Your task to perform on an android device: Go to Reddit.com Image 0: 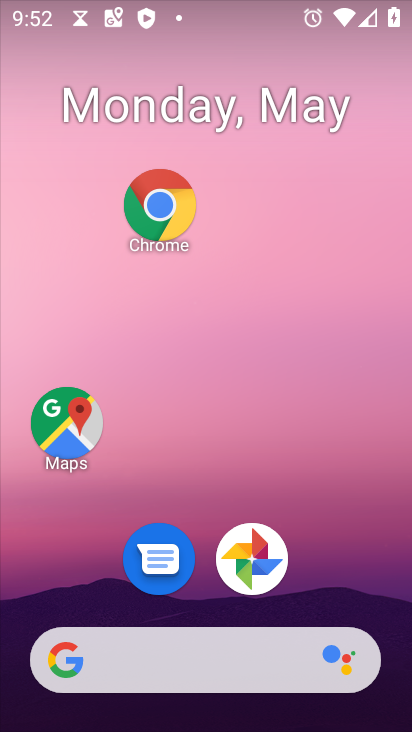
Step 0: drag from (216, 622) to (175, 133)
Your task to perform on an android device: Go to Reddit.com Image 1: 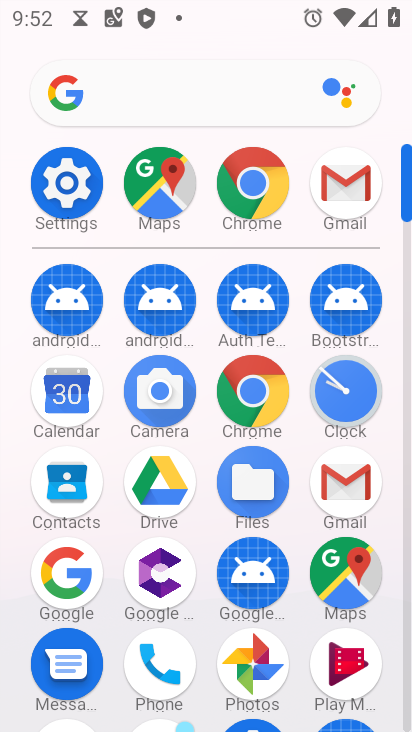
Step 1: click (241, 199)
Your task to perform on an android device: Go to Reddit.com Image 2: 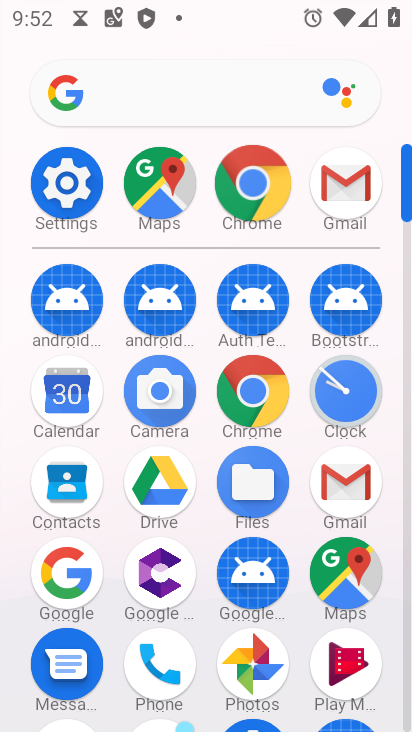
Step 2: click (249, 195)
Your task to perform on an android device: Go to Reddit.com Image 3: 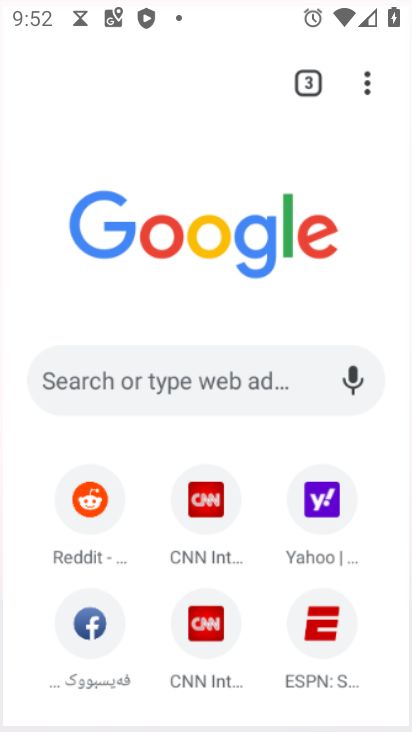
Step 3: click (252, 193)
Your task to perform on an android device: Go to Reddit.com Image 4: 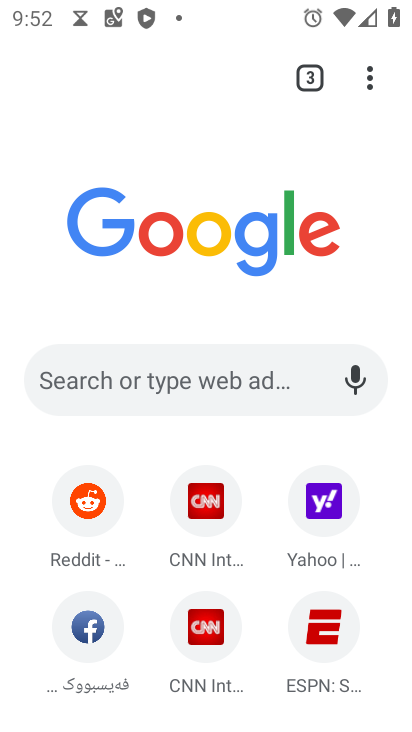
Step 4: click (51, 380)
Your task to perform on an android device: Go to Reddit.com Image 5: 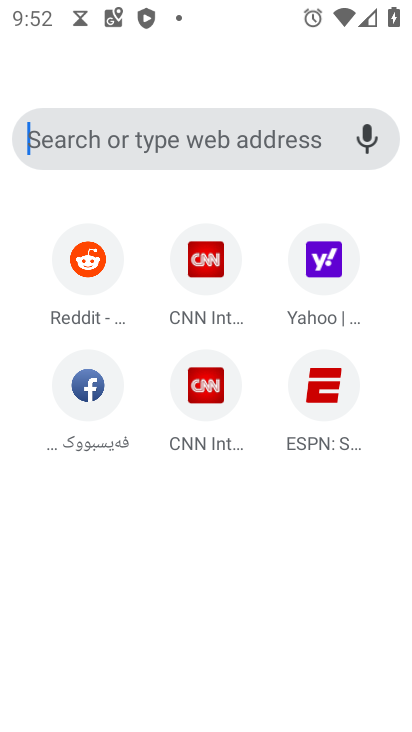
Step 5: click (52, 382)
Your task to perform on an android device: Go to Reddit.com Image 6: 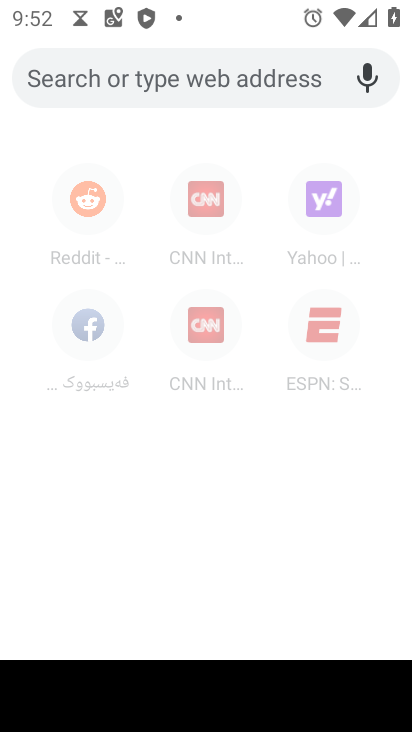
Step 6: click (52, 382)
Your task to perform on an android device: Go to Reddit.com Image 7: 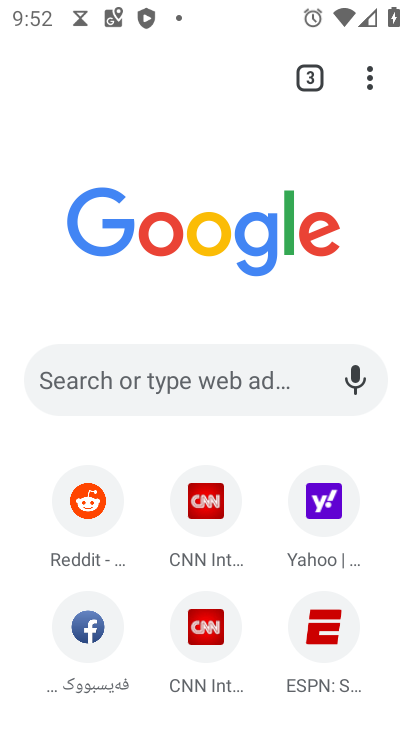
Step 7: click (52, 376)
Your task to perform on an android device: Go to Reddit.com Image 8: 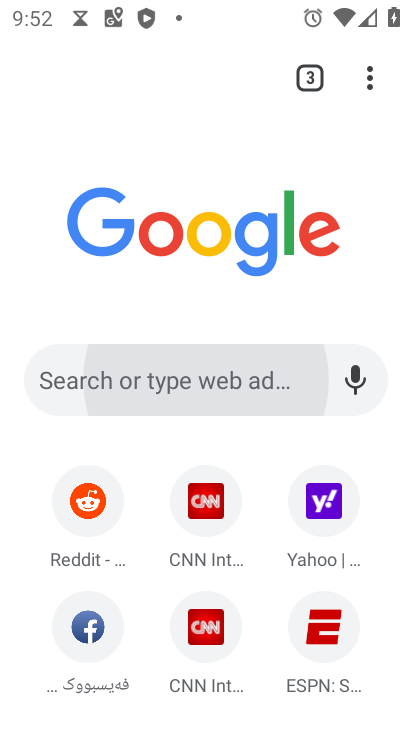
Step 8: click (52, 376)
Your task to perform on an android device: Go to Reddit.com Image 9: 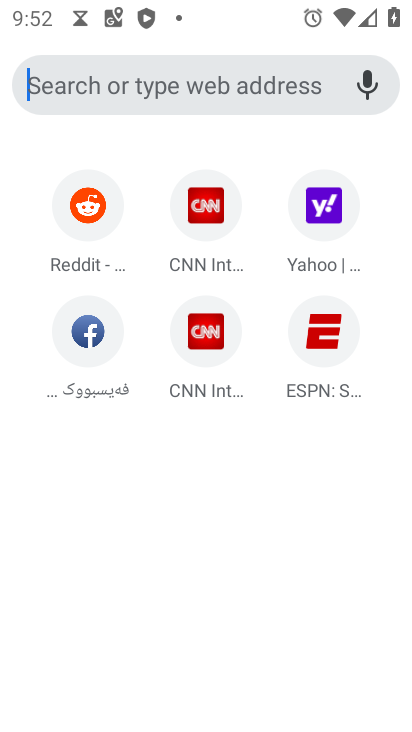
Step 9: click (56, 378)
Your task to perform on an android device: Go to Reddit.com Image 10: 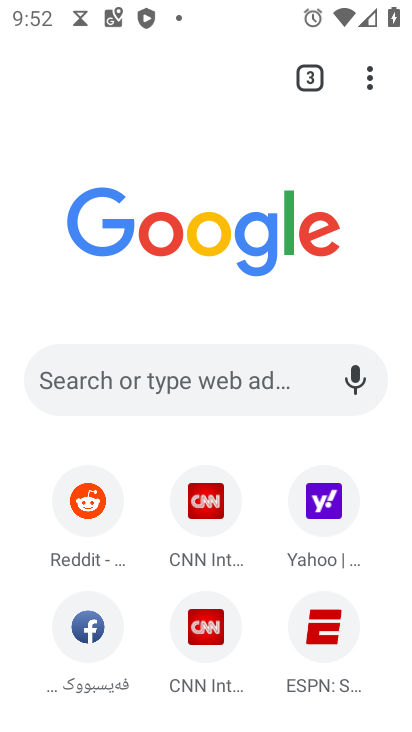
Step 10: click (53, 385)
Your task to perform on an android device: Go to Reddit.com Image 11: 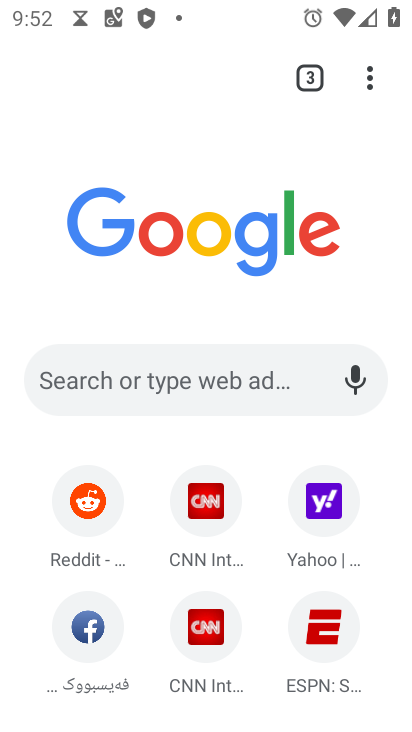
Step 11: click (53, 385)
Your task to perform on an android device: Go to Reddit.com Image 12: 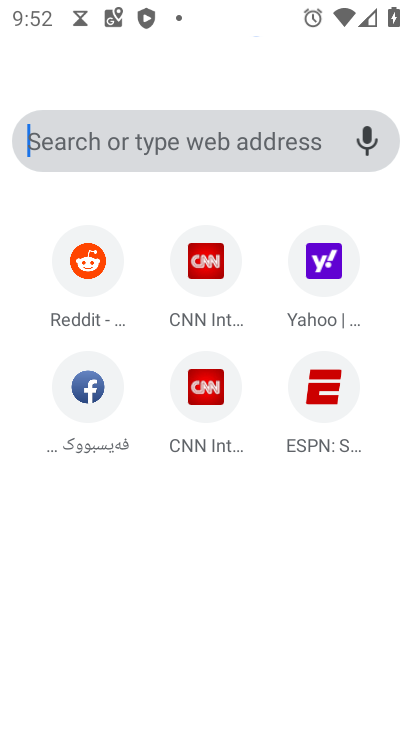
Step 12: click (54, 386)
Your task to perform on an android device: Go to Reddit.com Image 13: 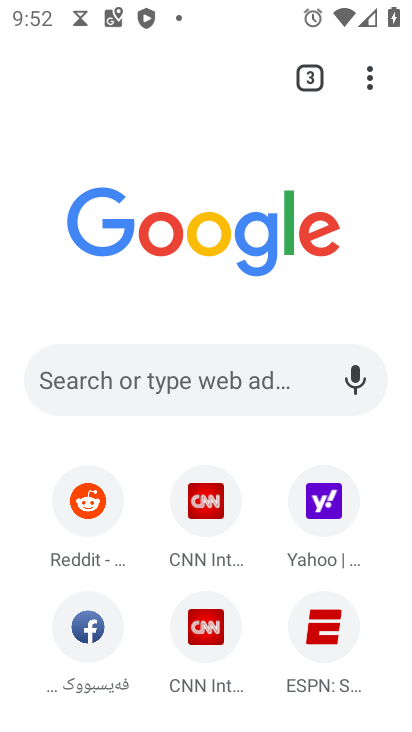
Step 13: click (66, 367)
Your task to perform on an android device: Go to Reddit.com Image 14: 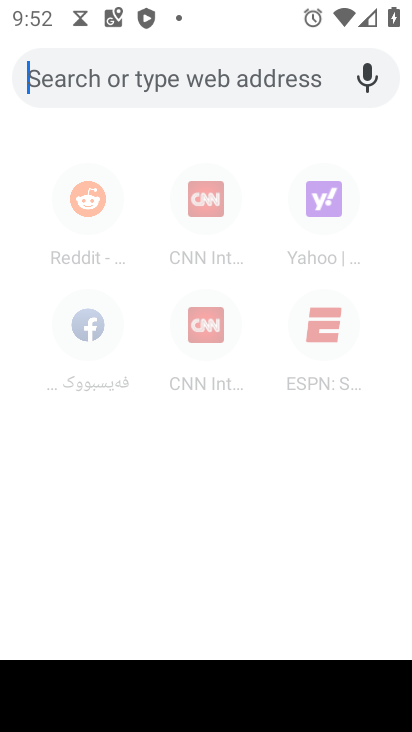
Step 14: type "reddit.com"
Your task to perform on an android device: Go to Reddit.com Image 15: 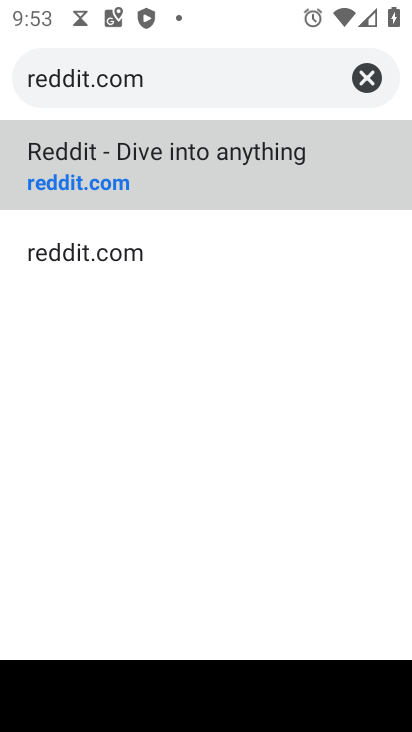
Step 15: click (64, 198)
Your task to perform on an android device: Go to Reddit.com Image 16: 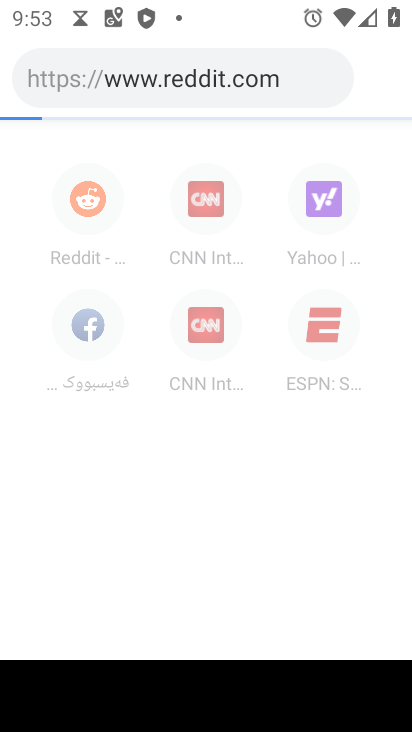
Step 16: click (55, 181)
Your task to perform on an android device: Go to Reddit.com Image 17: 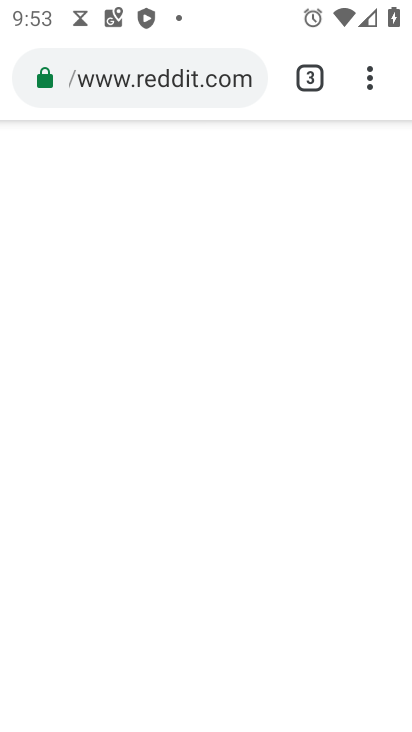
Step 17: task complete